Your task to perform on an android device: open the mobile data screen to see how much data has been used Image 0: 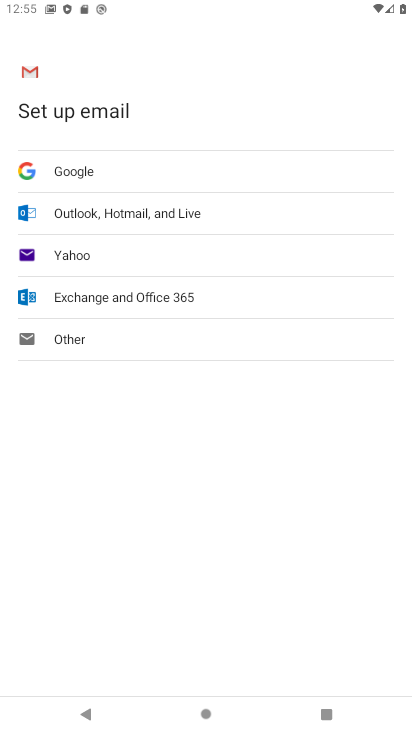
Step 0: press home button
Your task to perform on an android device: open the mobile data screen to see how much data has been used Image 1: 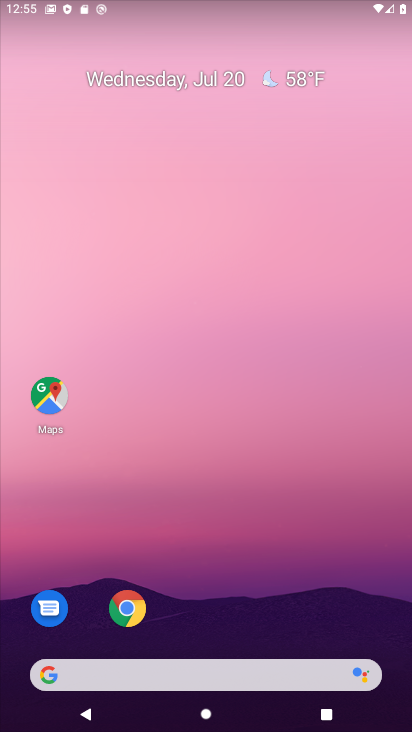
Step 1: drag from (242, 729) to (251, 5)
Your task to perform on an android device: open the mobile data screen to see how much data has been used Image 2: 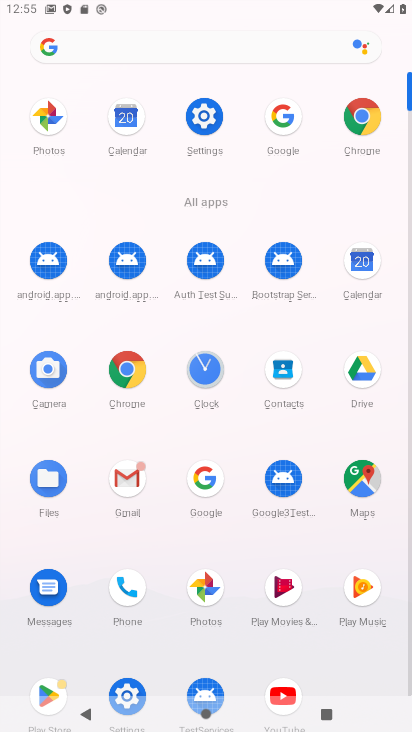
Step 2: click (199, 116)
Your task to perform on an android device: open the mobile data screen to see how much data has been used Image 3: 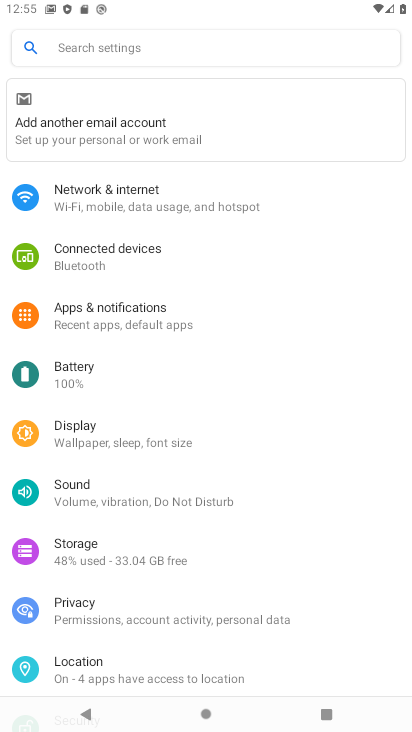
Step 3: click (118, 195)
Your task to perform on an android device: open the mobile data screen to see how much data has been used Image 4: 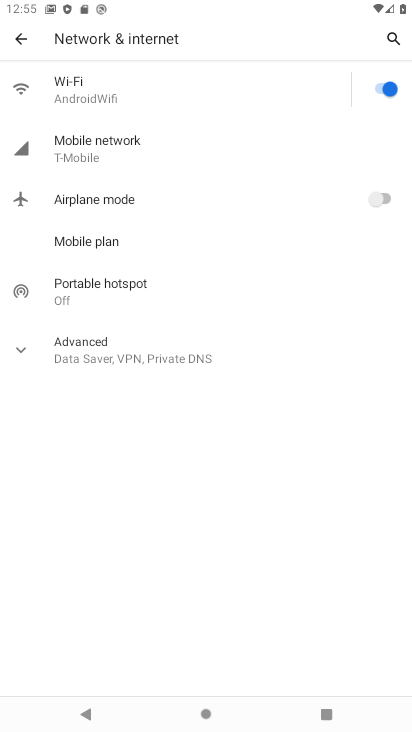
Step 4: click (91, 148)
Your task to perform on an android device: open the mobile data screen to see how much data has been used Image 5: 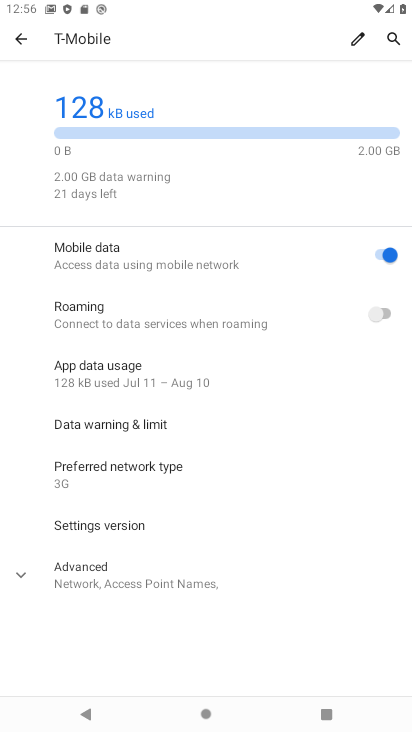
Step 5: task complete